Your task to perform on an android device: turn on location history Image 0: 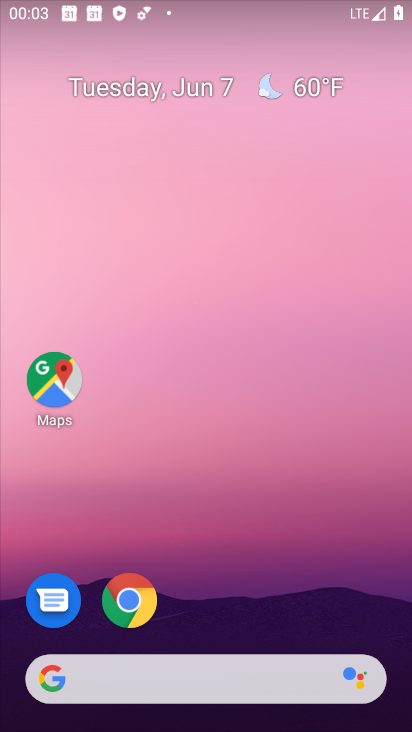
Step 0: drag from (244, 726) to (245, 69)
Your task to perform on an android device: turn on location history Image 1: 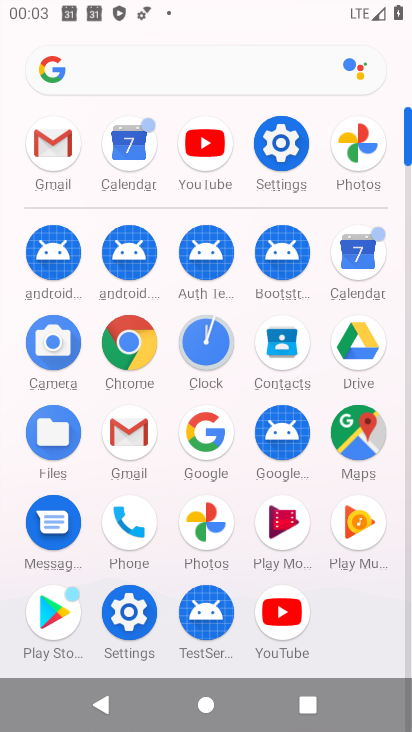
Step 1: click (268, 142)
Your task to perform on an android device: turn on location history Image 2: 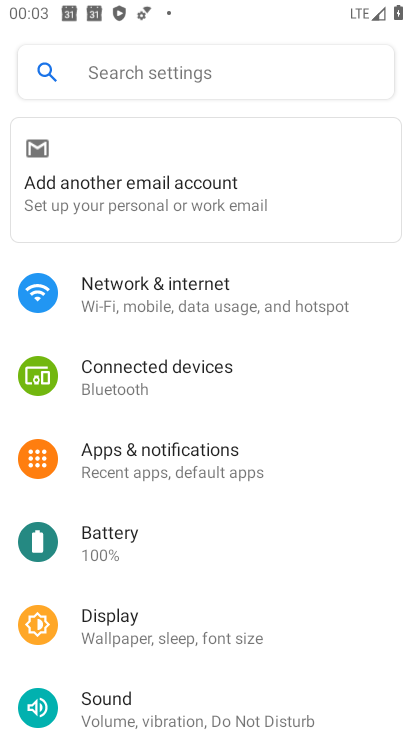
Step 2: drag from (181, 673) to (187, 276)
Your task to perform on an android device: turn on location history Image 3: 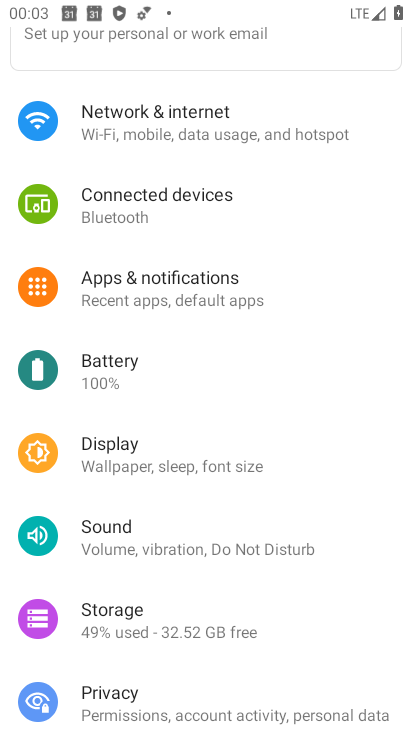
Step 3: drag from (158, 680) to (158, 292)
Your task to perform on an android device: turn on location history Image 4: 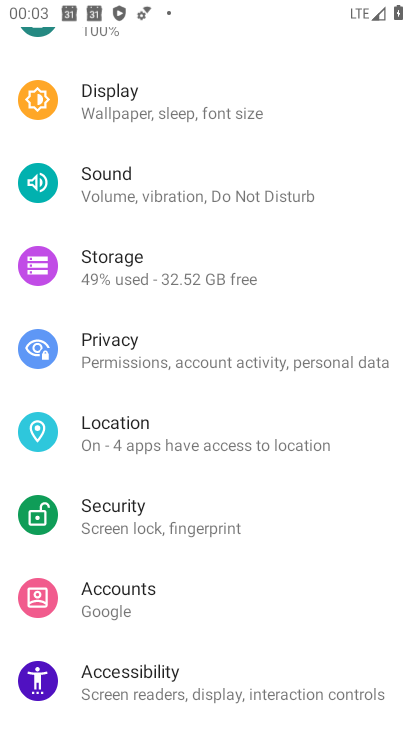
Step 4: click (115, 432)
Your task to perform on an android device: turn on location history Image 5: 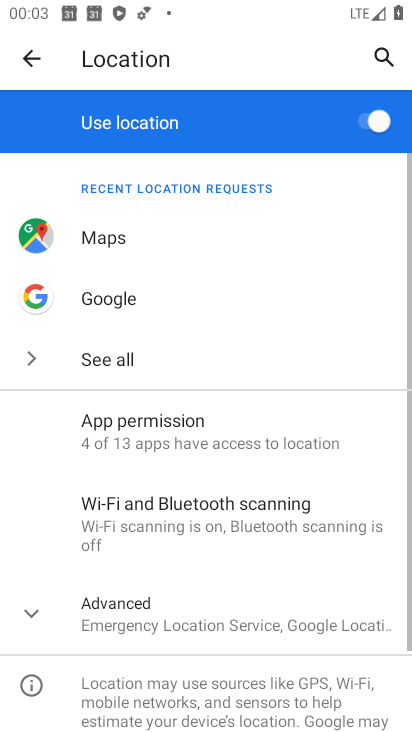
Step 5: click (166, 607)
Your task to perform on an android device: turn on location history Image 6: 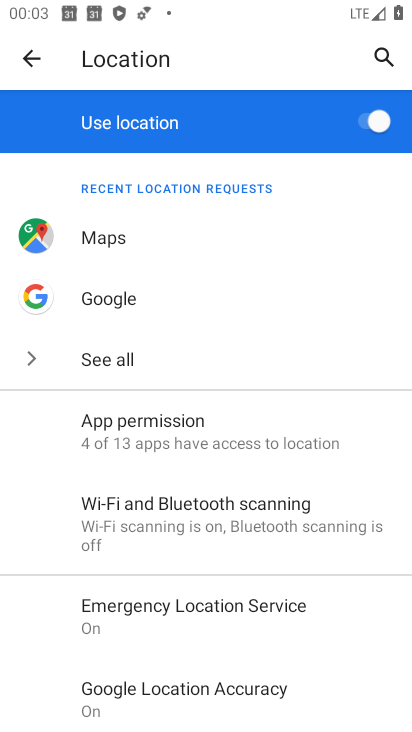
Step 6: drag from (234, 714) to (267, 394)
Your task to perform on an android device: turn on location history Image 7: 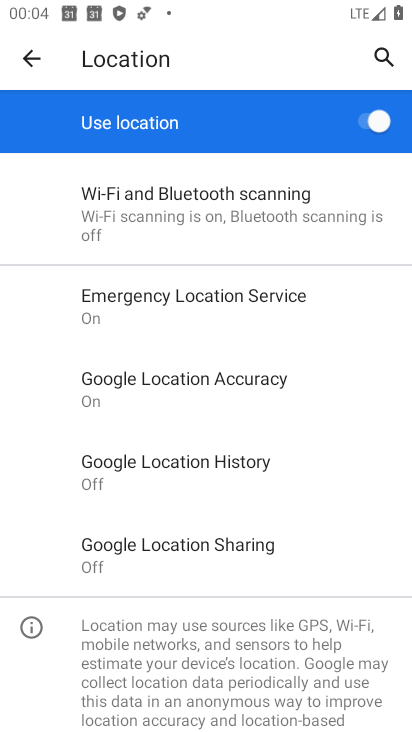
Step 7: click (217, 460)
Your task to perform on an android device: turn on location history Image 8: 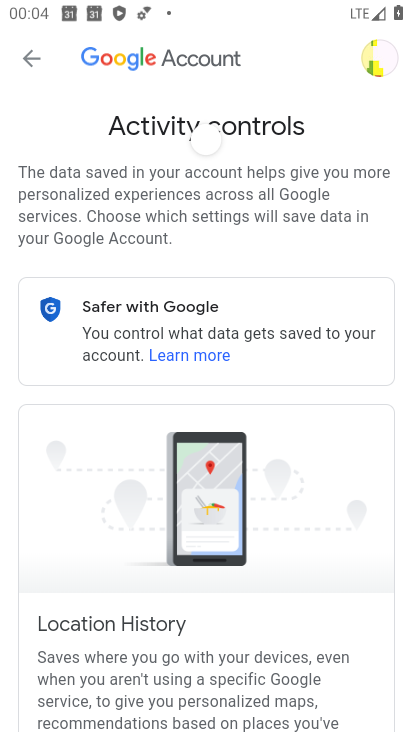
Step 8: task complete